Your task to perform on an android device: Go to location settings Image 0: 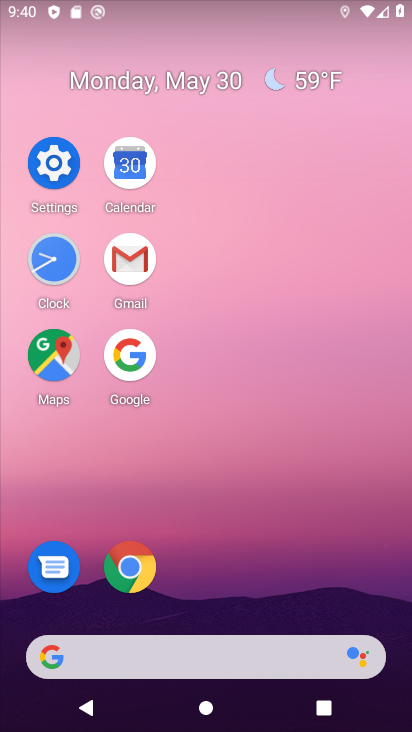
Step 0: click (62, 151)
Your task to perform on an android device: Go to location settings Image 1: 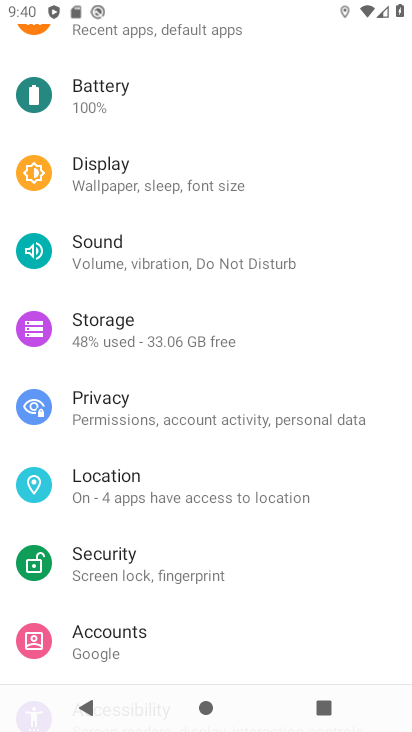
Step 1: click (303, 489)
Your task to perform on an android device: Go to location settings Image 2: 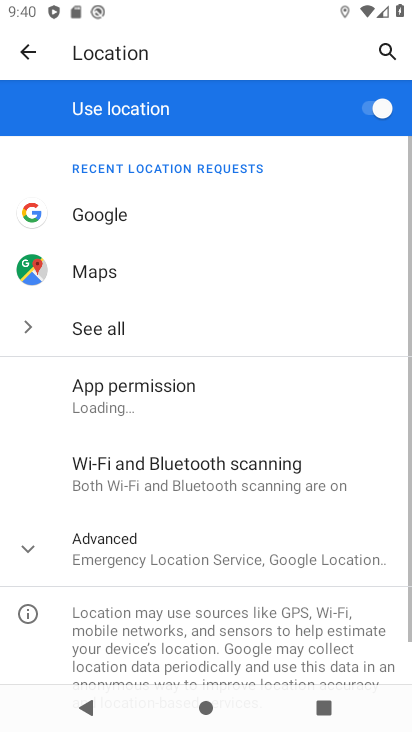
Step 2: task complete